Your task to perform on an android device: Open Youtube and go to "Your channel" Image 0: 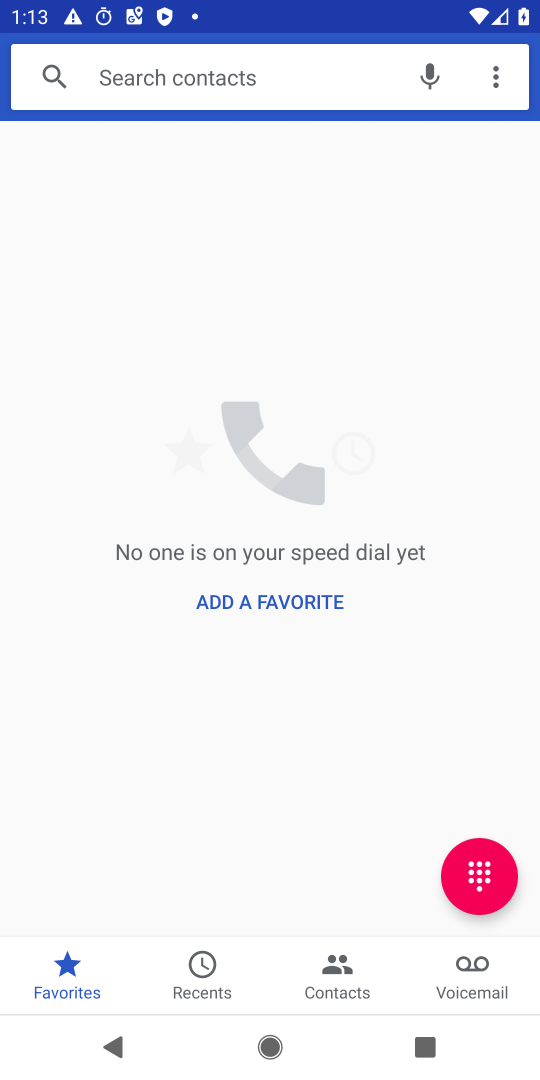
Step 0: press home button
Your task to perform on an android device: Open Youtube and go to "Your channel" Image 1: 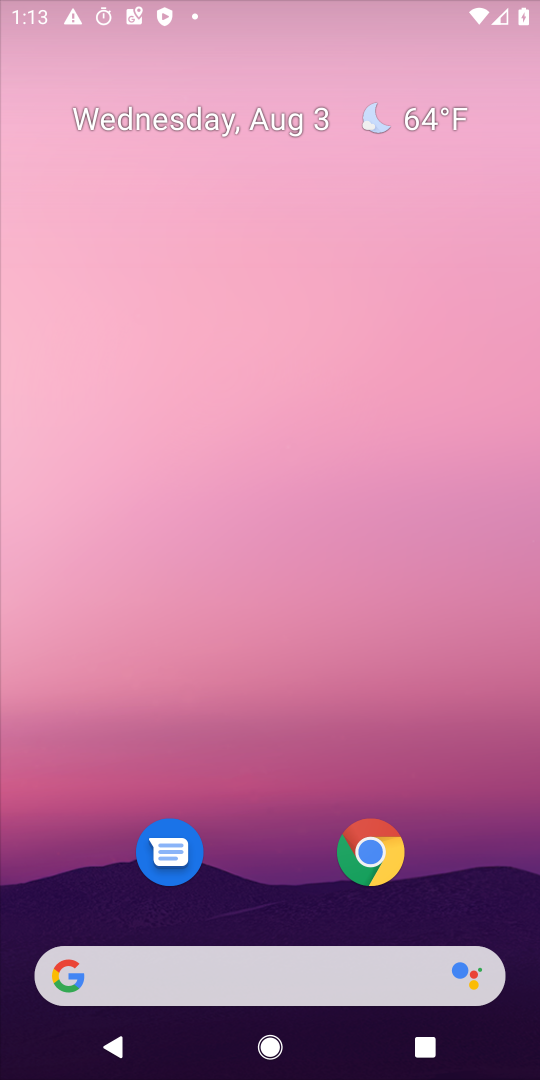
Step 1: drag from (454, 768) to (295, 28)
Your task to perform on an android device: Open Youtube and go to "Your channel" Image 2: 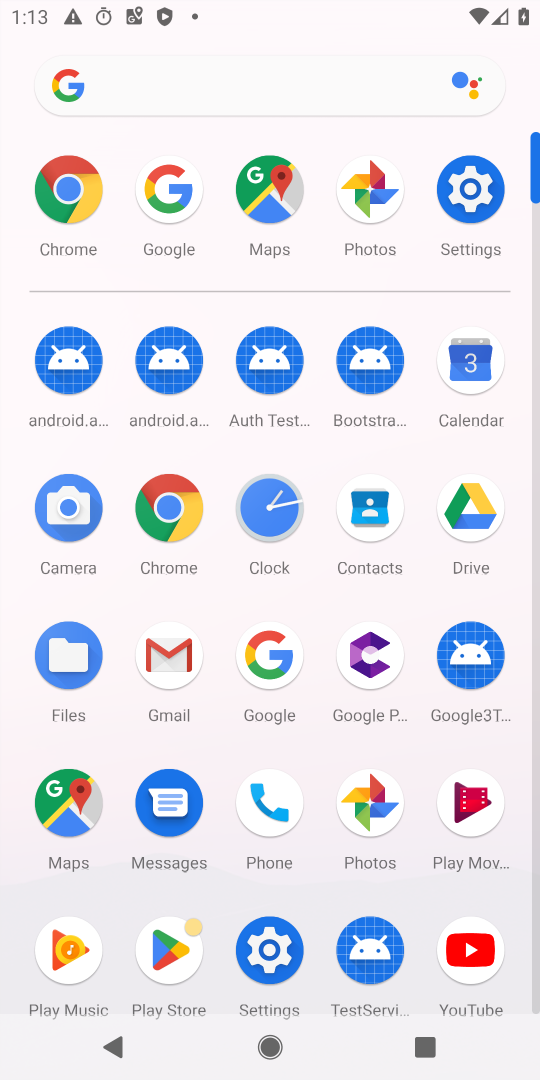
Step 2: click (469, 947)
Your task to perform on an android device: Open Youtube and go to "Your channel" Image 3: 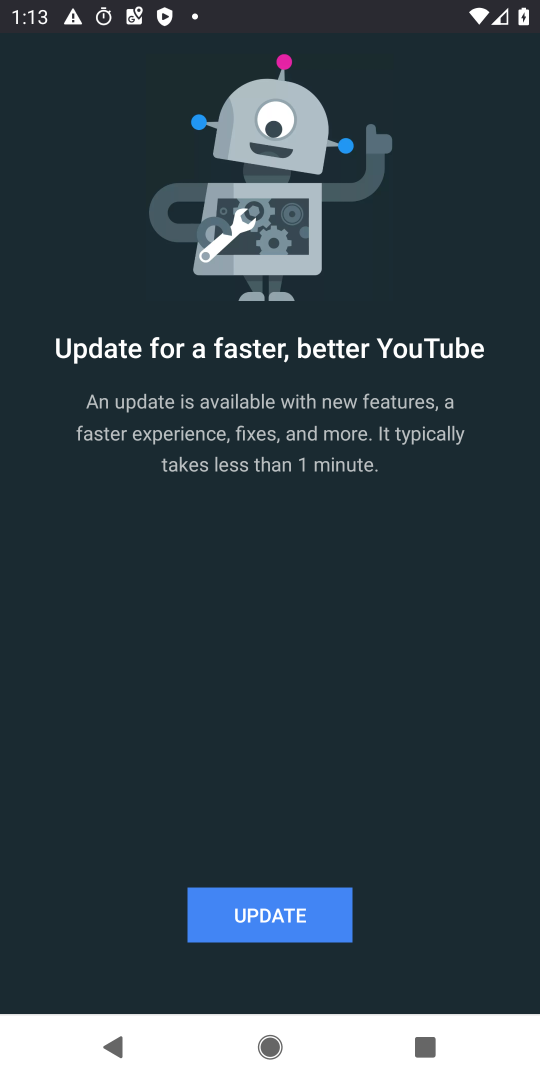
Step 3: click (249, 911)
Your task to perform on an android device: Open Youtube and go to "Your channel" Image 4: 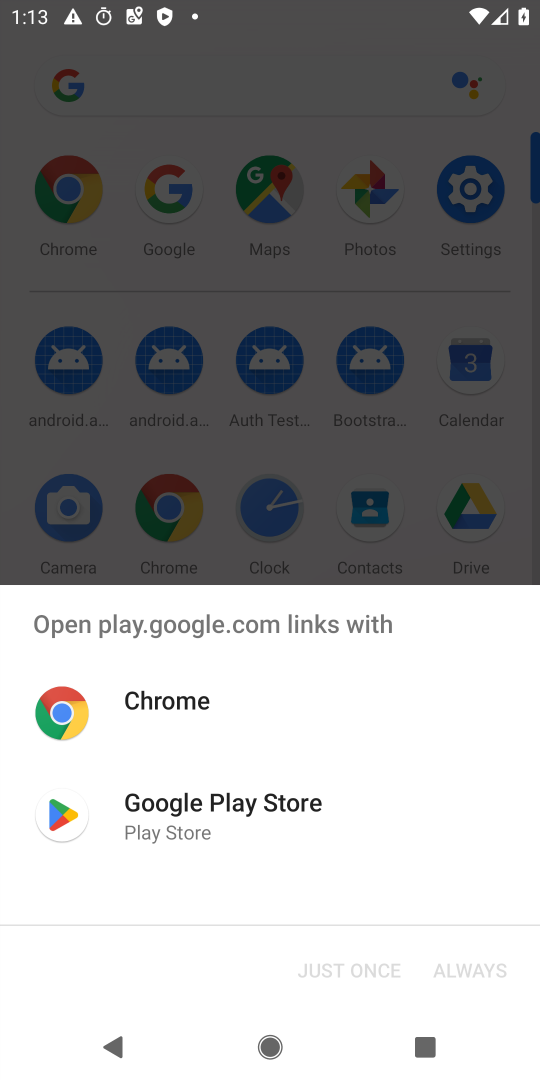
Step 4: click (125, 814)
Your task to perform on an android device: Open Youtube and go to "Your channel" Image 5: 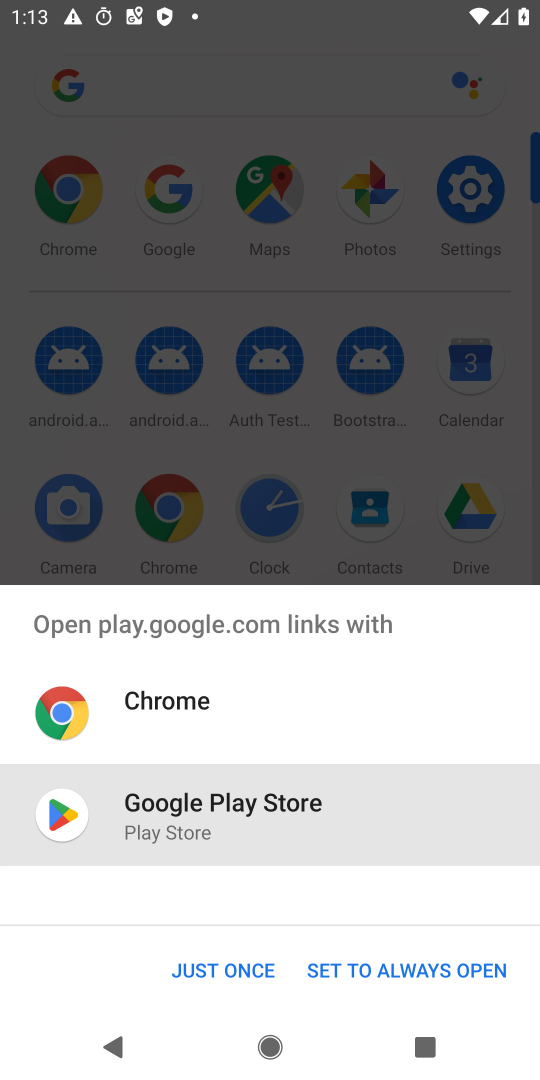
Step 5: click (207, 966)
Your task to perform on an android device: Open Youtube and go to "Your channel" Image 6: 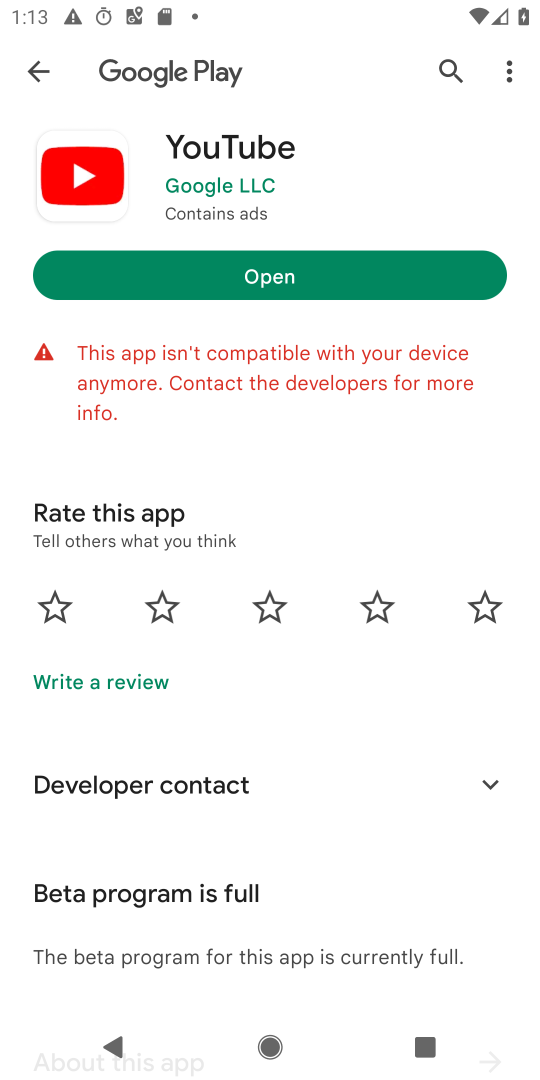
Step 6: click (282, 281)
Your task to perform on an android device: Open Youtube and go to "Your channel" Image 7: 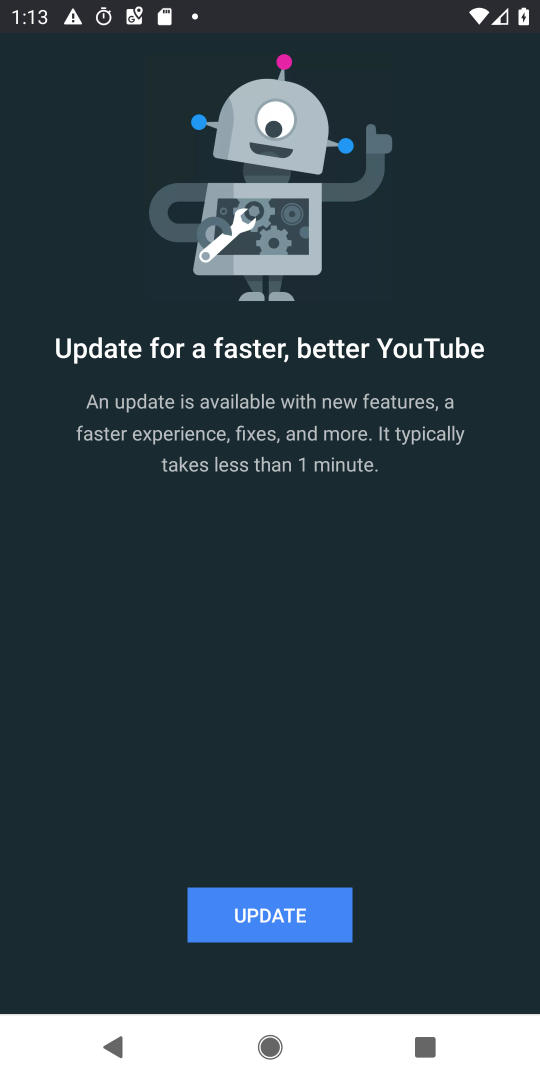
Step 7: task complete